Your task to perform on an android device: Open Google Chrome Image 0: 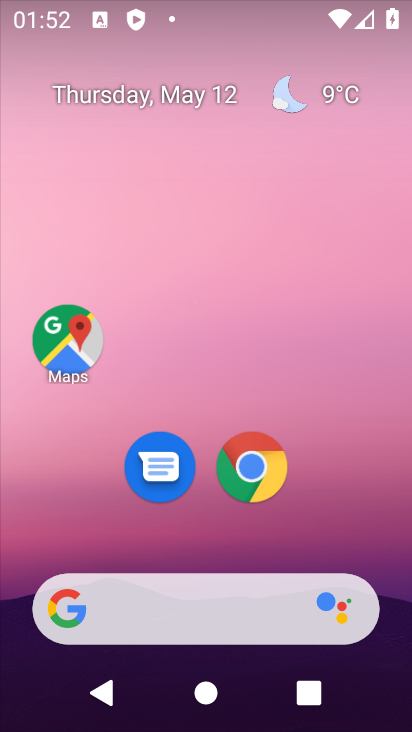
Step 0: drag from (278, 258) to (279, 190)
Your task to perform on an android device: Open Google Chrome Image 1: 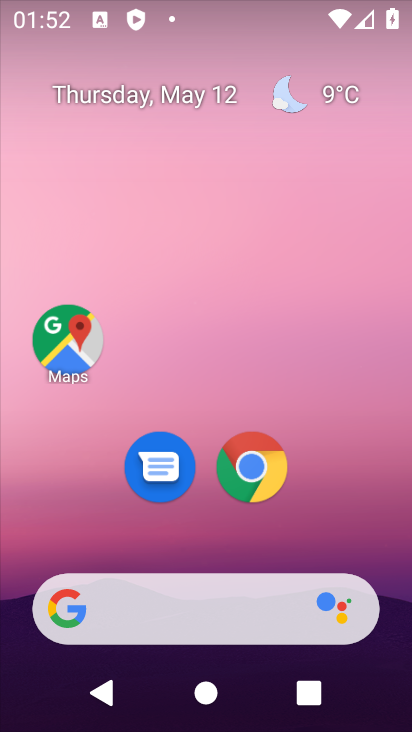
Step 1: drag from (271, 478) to (294, 198)
Your task to perform on an android device: Open Google Chrome Image 2: 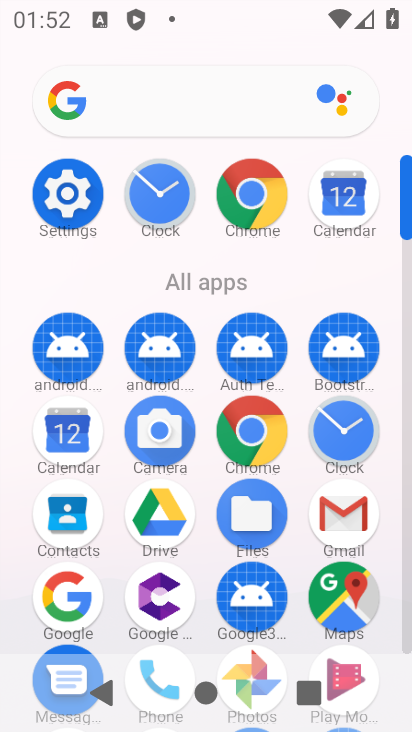
Step 2: click (248, 189)
Your task to perform on an android device: Open Google Chrome Image 3: 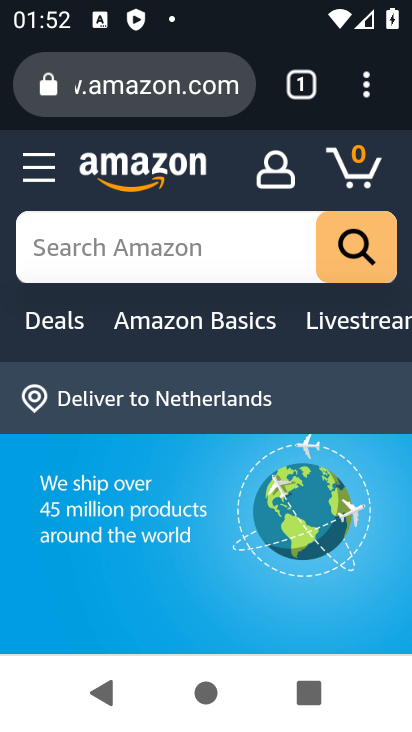
Step 3: task complete